Your task to perform on an android device: toggle show notifications on the lock screen Image 0: 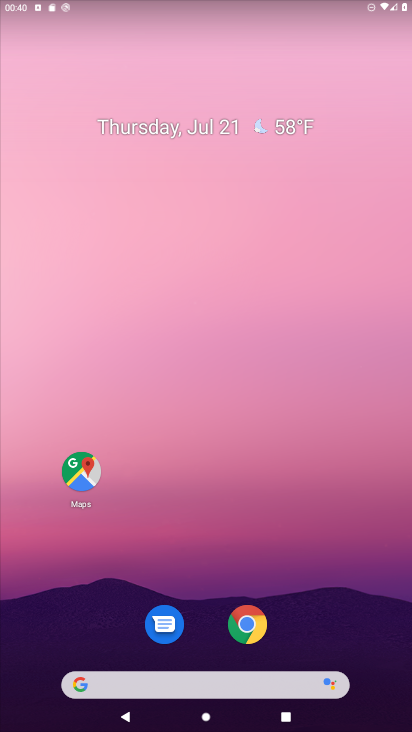
Step 0: drag from (208, 612) to (275, 151)
Your task to perform on an android device: toggle show notifications on the lock screen Image 1: 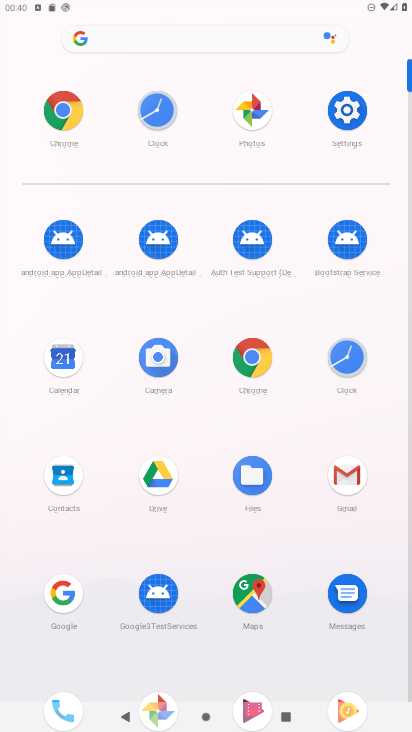
Step 1: click (354, 130)
Your task to perform on an android device: toggle show notifications on the lock screen Image 2: 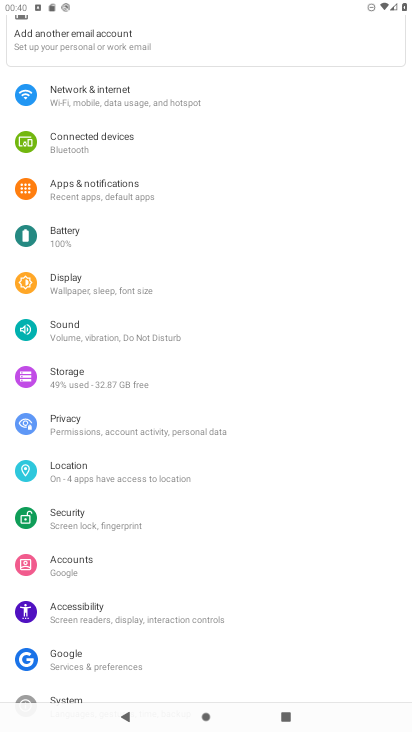
Step 2: click (130, 195)
Your task to perform on an android device: toggle show notifications on the lock screen Image 3: 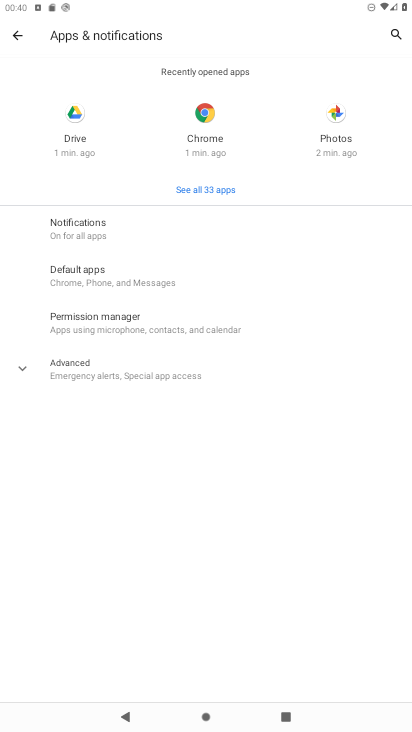
Step 3: click (120, 223)
Your task to perform on an android device: toggle show notifications on the lock screen Image 4: 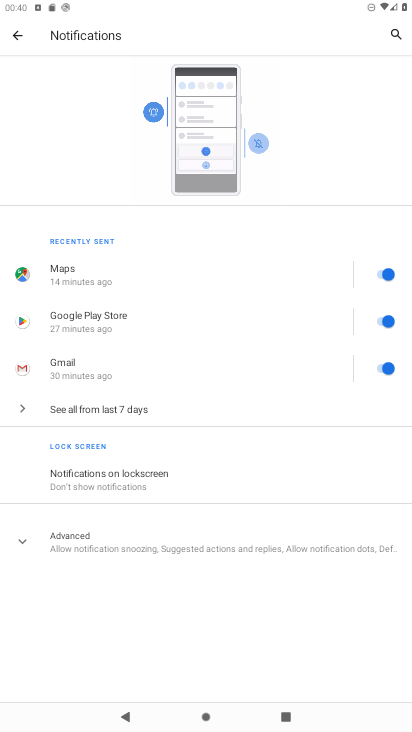
Step 4: click (140, 480)
Your task to perform on an android device: toggle show notifications on the lock screen Image 5: 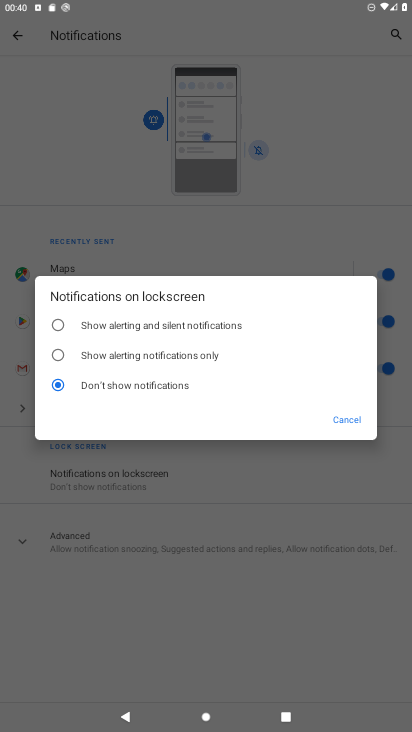
Step 5: click (96, 328)
Your task to perform on an android device: toggle show notifications on the lock screen Image 6: 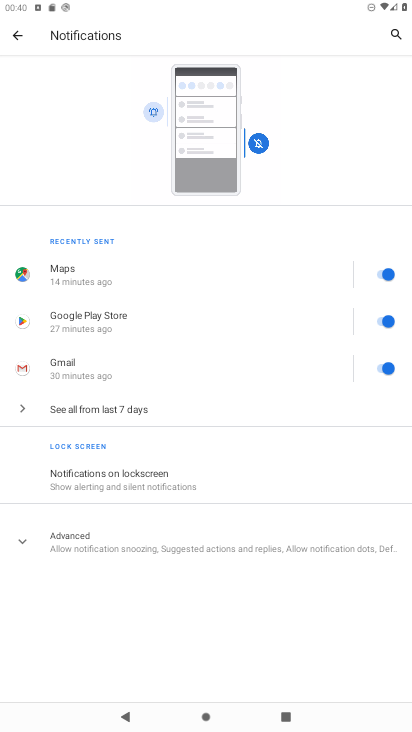
Step 6: task complete